Your task to perform on an android device: set the stopwatch Image 0: 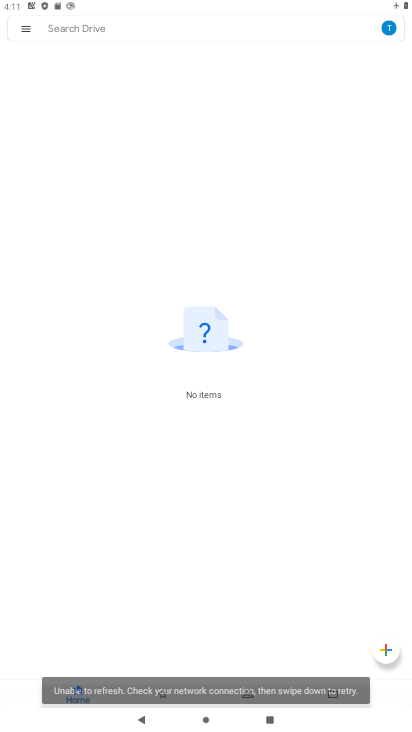
Step 0: press home button
Your task to perform on an android device: set the stopwatch Image 1: 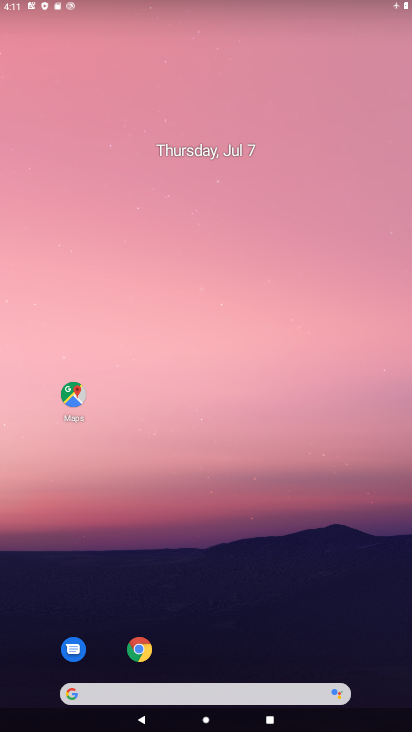
Step 1: drag from (368, 648) to (242, 236)
Your task to perform on an android device: set the stopwatch Image 2: 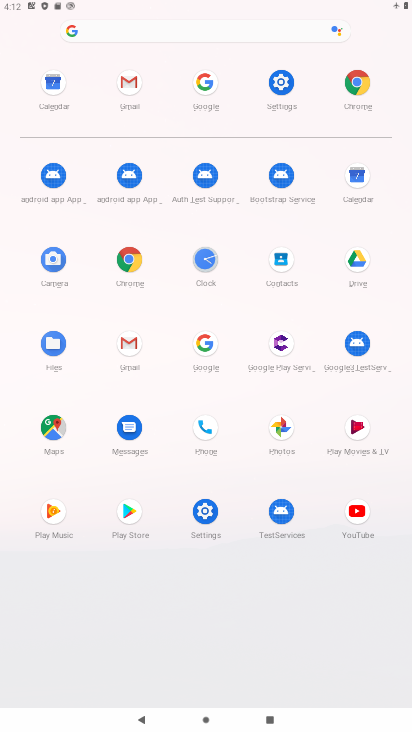
Step 2: click (194, 268)
Your task to perform on an android device: set the stopwatch Image 3: 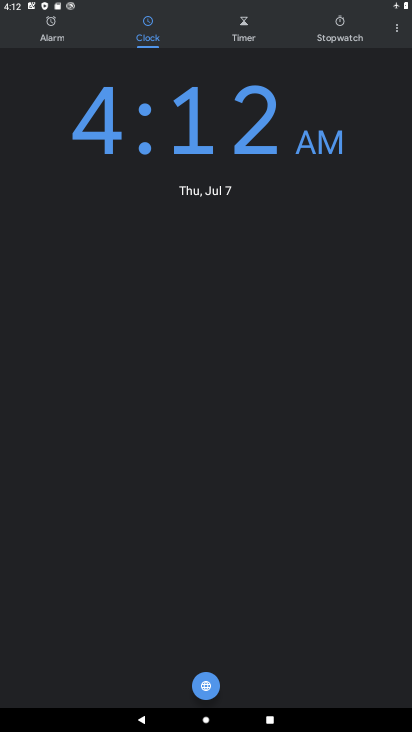
Step 3: click (347, 37)
Your task to perform on an android device: set the stopwatch Image 4: 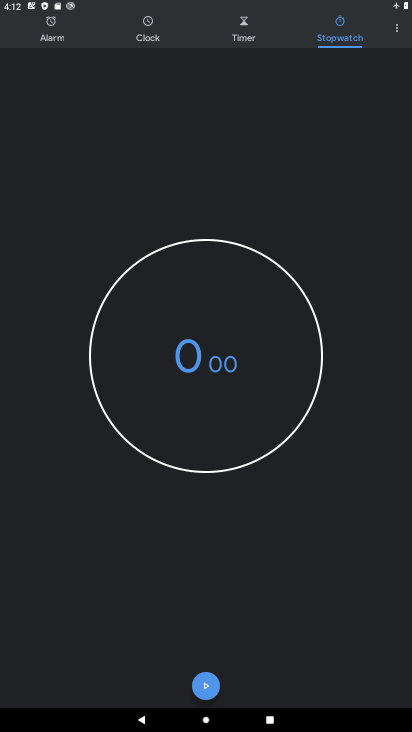
Step 4: click (200, 684)
Your task to perform on an android device: set the stopwatch Image 5: 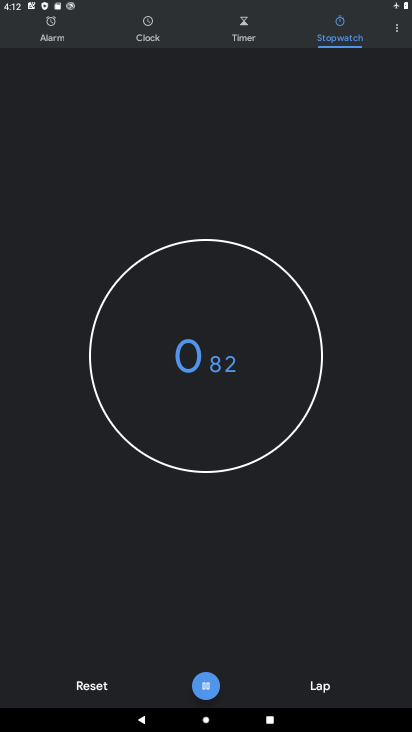
Step 5: click (199, 684)
Your task to perform on an android device: set the stopwatch Image 6: 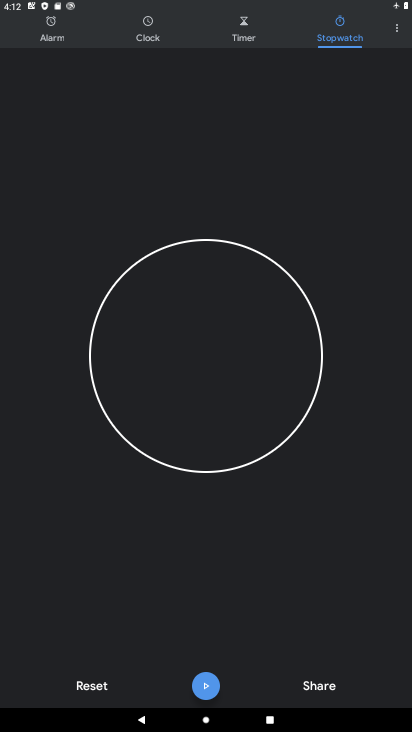
Step 6: task complete